Your task to perform on an android device: Search for Italian restaurants on Maps Image 0: 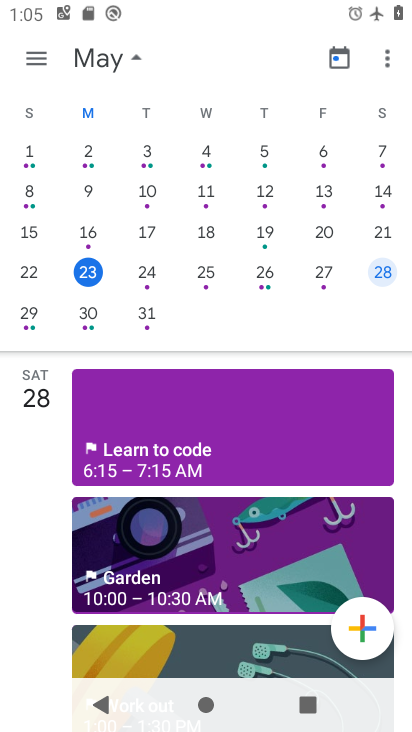
Step 0: press home button
Your task to perform on an android device: Search for Italian restaurants on Maps Image 1: 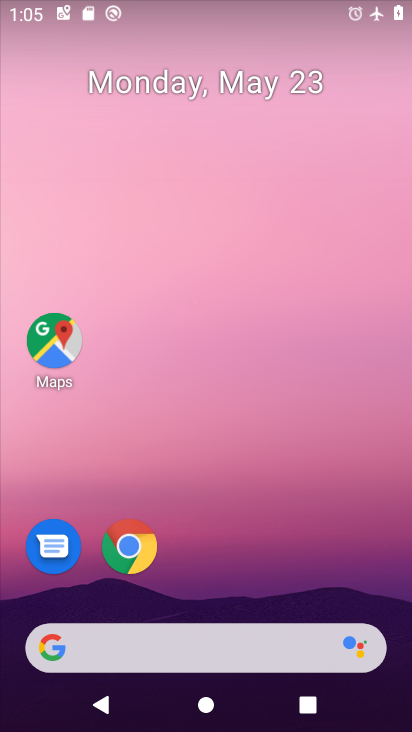
Step 1: drag from (256, 673) to (331, 35)
Your task to perform on an android device: Search for Italian restaurants on Maps Image 2: 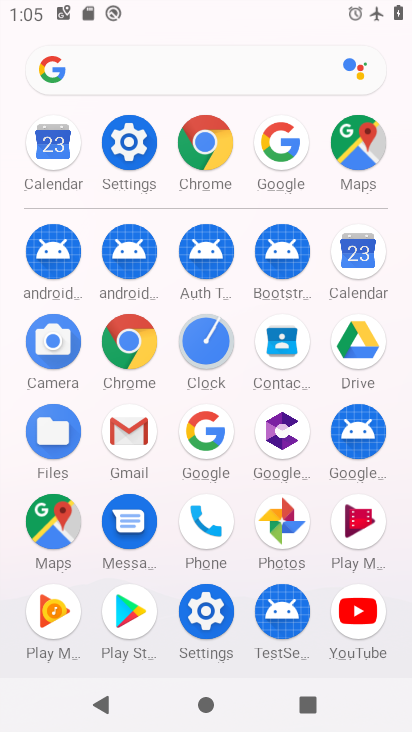
Step 2: click (71, 531)
Your task to perform on an android device: Search for Italian restaurants on Maps Image 3: 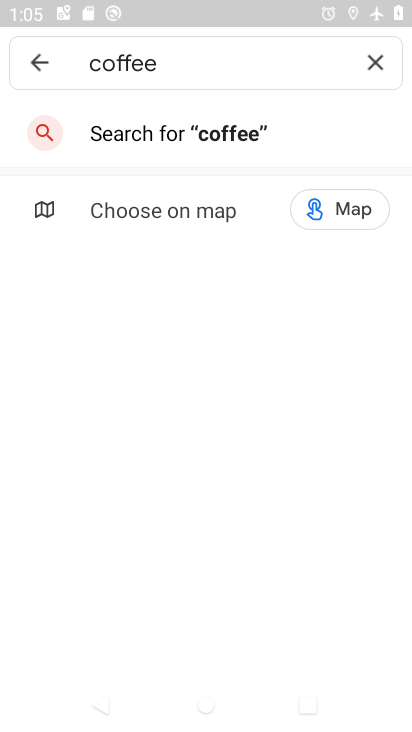
Step 3: click (384, 60)
Your task to perform on an android device: Search for Italian restaurants on Maps Image 4: 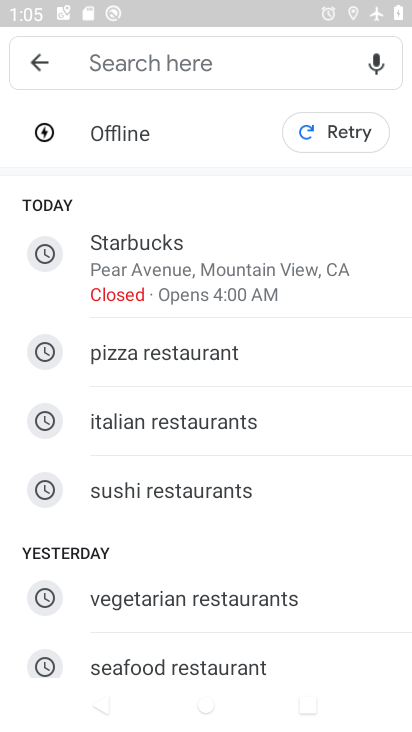
Step 4: click (231, 432)
Your task to perform on an android device: Search for Italian restaurants on Maps Image 5: 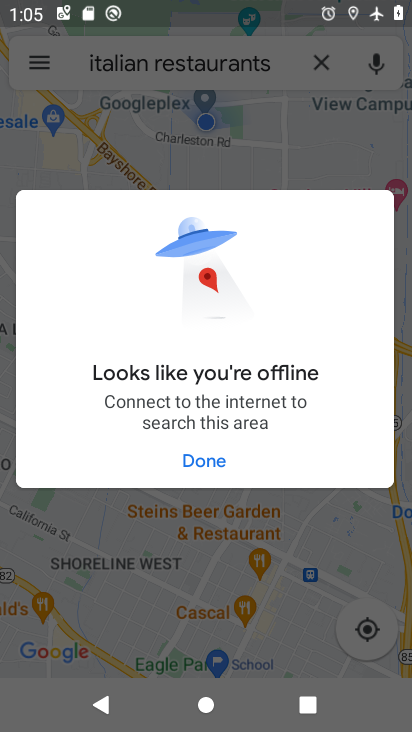
Step 5: click (207, 473)
Your task to perform on an android device: Search for Italian restaurants on Maps Image 6: 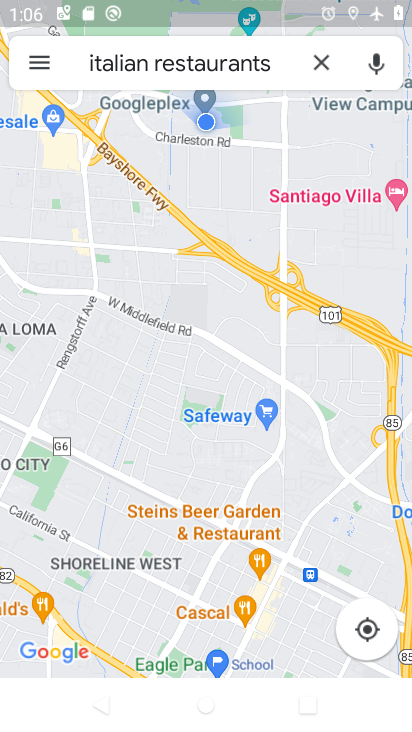
Step 6: task complete